Your task to perform on an android device: turn off data saver in the chrome app Image 0: 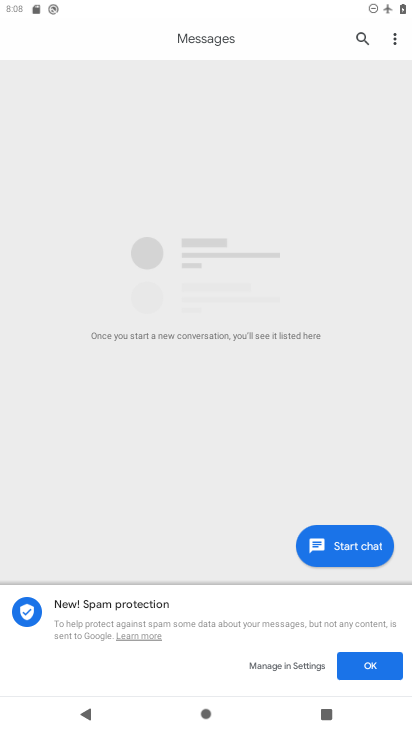
Step 0: press home button
Your task to perform on an android device: turn off data saver in the chrome app Image 1: 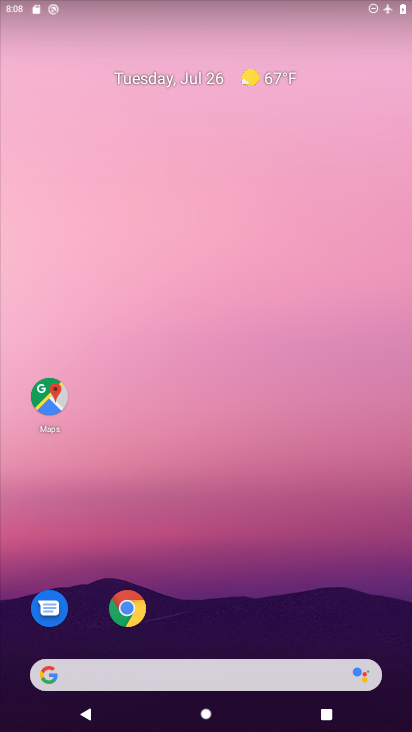
Step 1: drag from (246, 661) to (253, 287)
Your task to perform on an android device: turn off data saver in the chrome app Image 2: 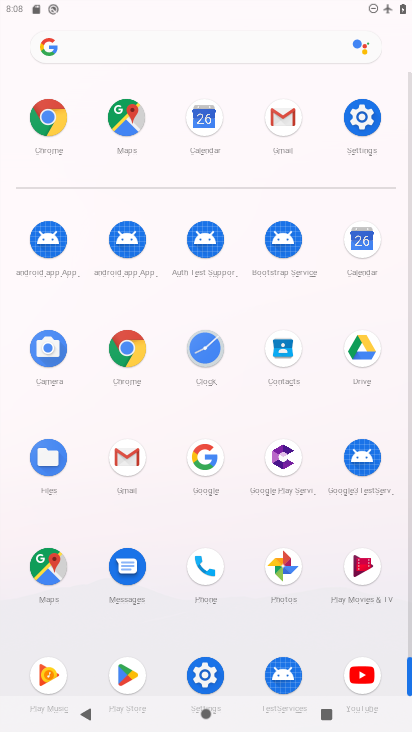
Step 2: click (124, 362)
Your task to perform on an android device: turn off data saver in the chrome app Image 3: 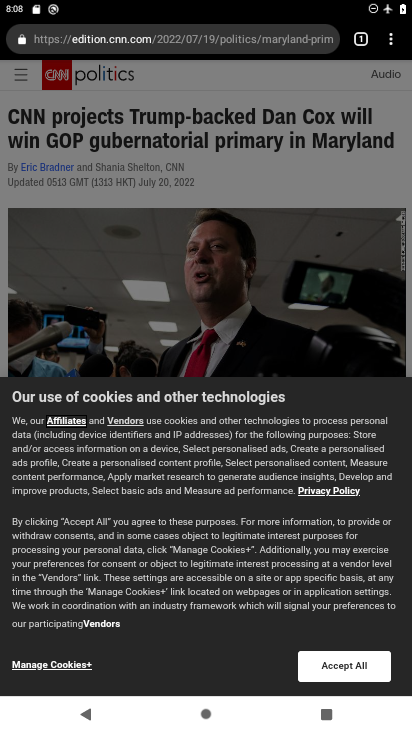
Step 3: click (390, 44)
Your task to perform on an android device: turn off data saver in the chrome app Image 4: 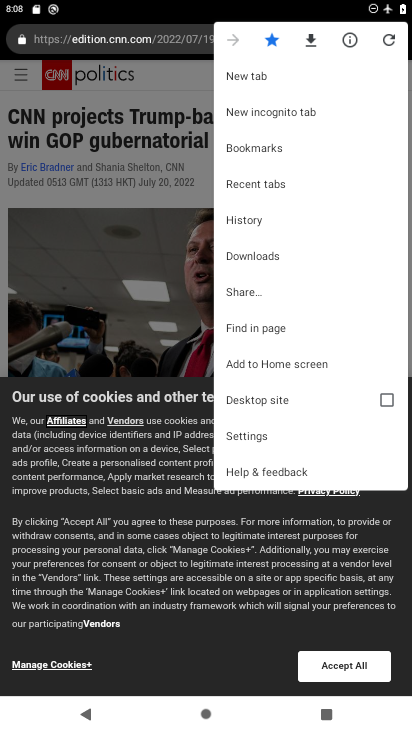
Step 4: click (253, 439)
Your task to perform on an android device: turn off data saver in the chrome app Image 5: 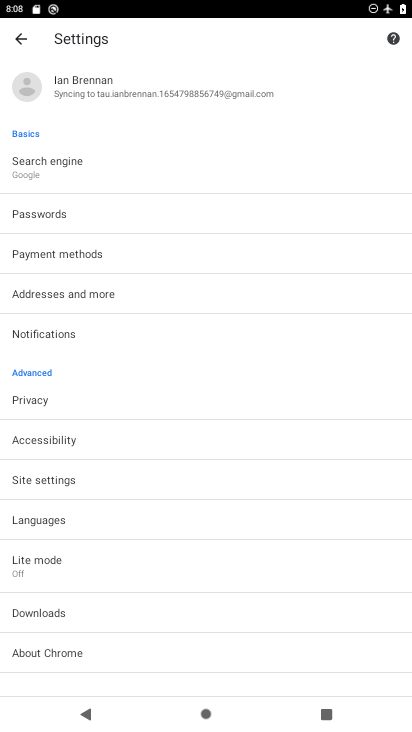
Step 5: click (48, 560)
Your task to perform on an android device: turn off data saver in the chrome app Image 6: 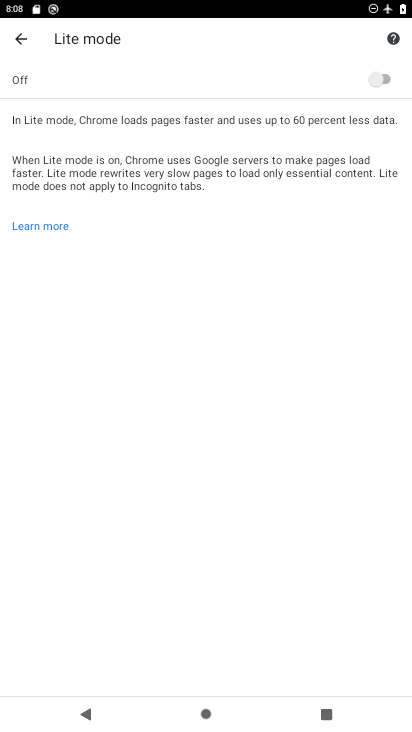
Step 6: task complete